Your task to perform on an android device: change text size in settings app Image 0: 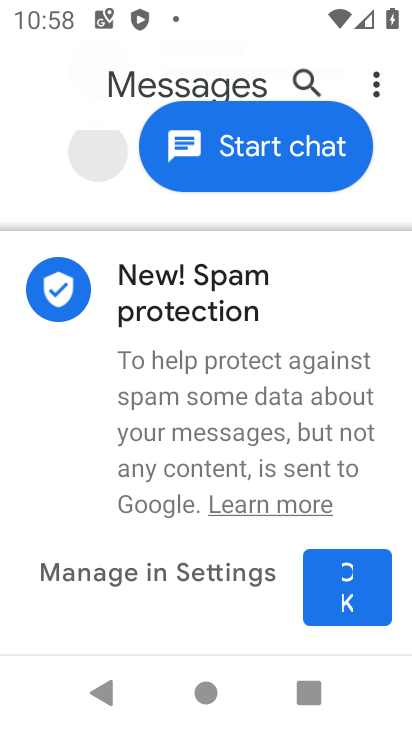
Step 0: press home button
Your task to perform on an android device: change text size in settings app Image 1: 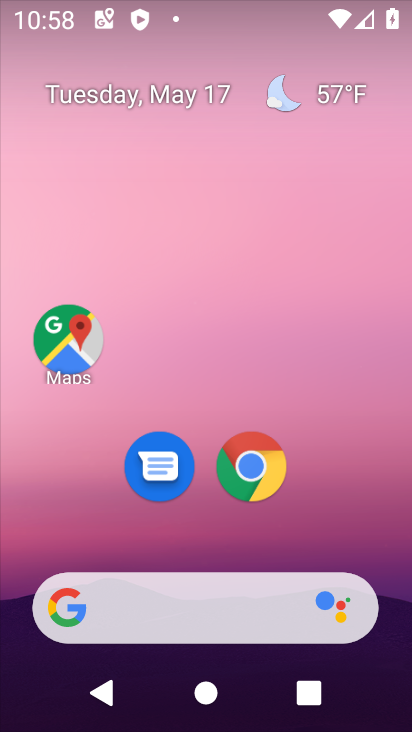
Step 1: drag from (258, 639) to (348, 161)
Your task to perform on an android device: change text size in settings app Image 2: 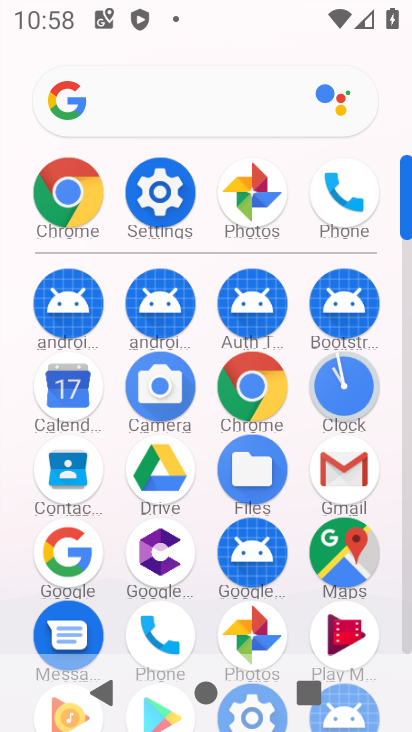
Step 2: click (157, 194)
Your task to perform on an android device: change text size in settings app Image 3: 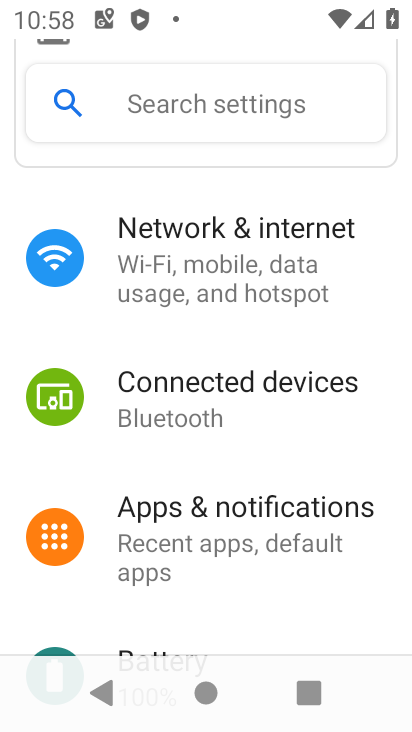
Step 3: click (164, 113)
Your task to perform on an android device: change text size in settings app Image 4: 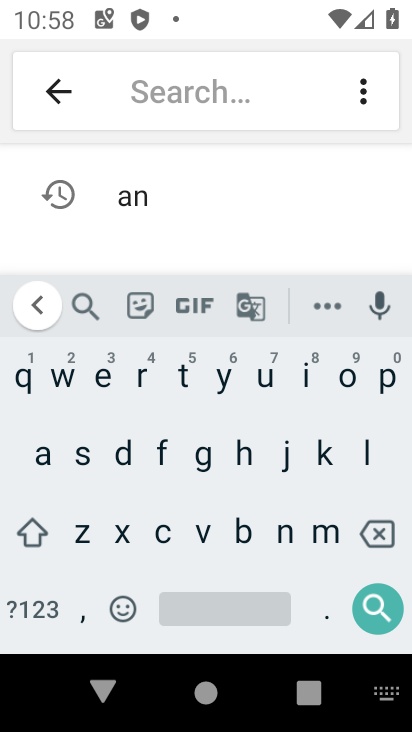
Step 4: click (71, 466)
Your task to perform on an android device: change text size in settings app Image 5: 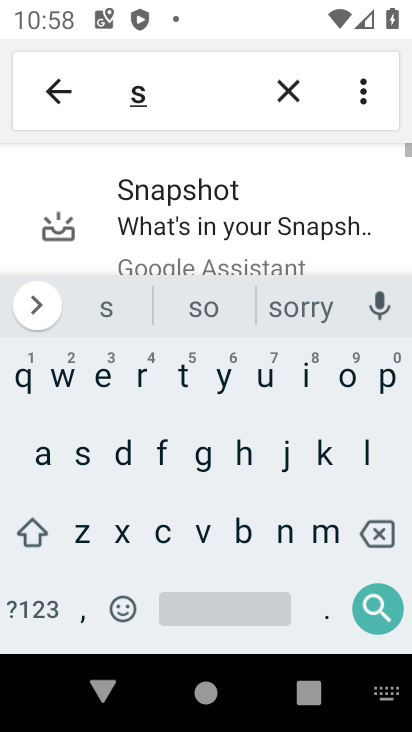
Step 5: click (295, 381)
Your task to perform on an android device: change text size in settings app Image 6: 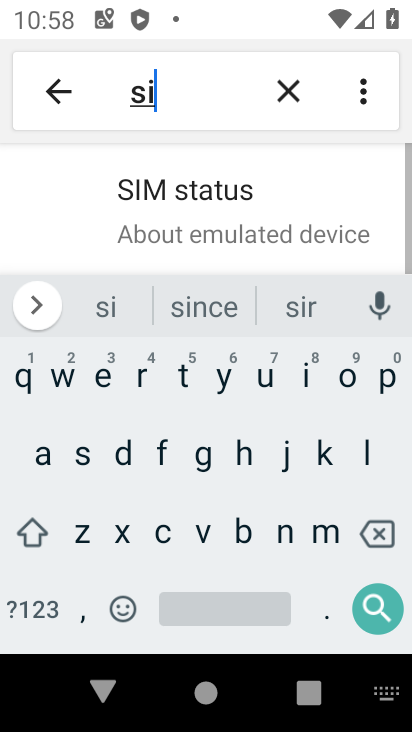
Step 6: click (79, 534)
Your task to perform on an android device: change text size in settings app Image 7: 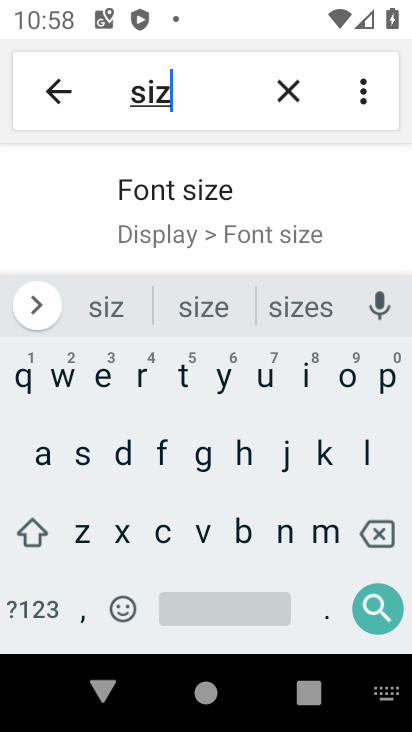
Step 7: click (188, 221)
Your task to perform on an android device: change text size in settings app Image 8: 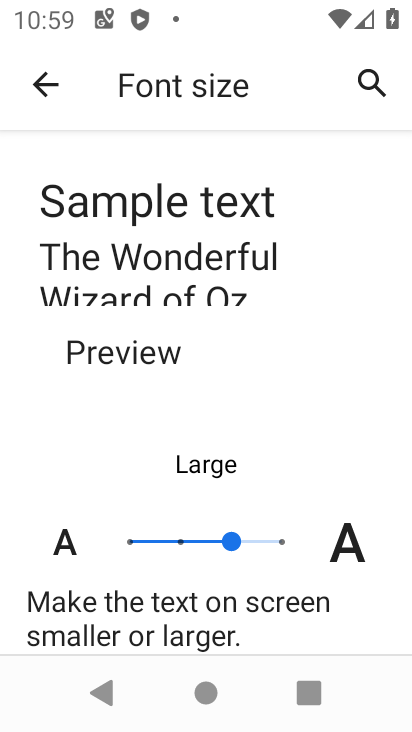
Step 8: click (182, 548)
Your task to perform on an android device: change text size in settings app Image 9: 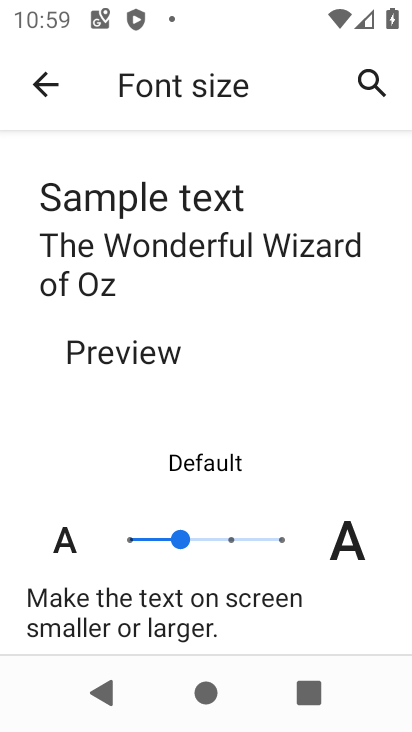
Step 9: task complete